Your task to perform on an android device: Open the Play Movies app and select the watchlist tab. Image 0: 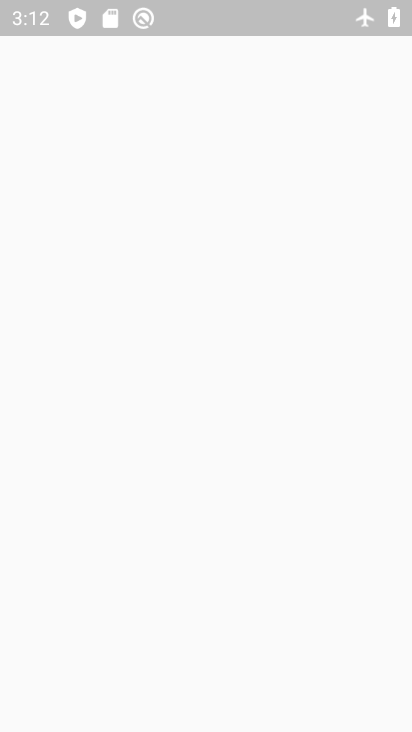
Step 0: press back button
Your task to perform on an android device: Open the Play Movies app and select the watchlist tab. Image 1: 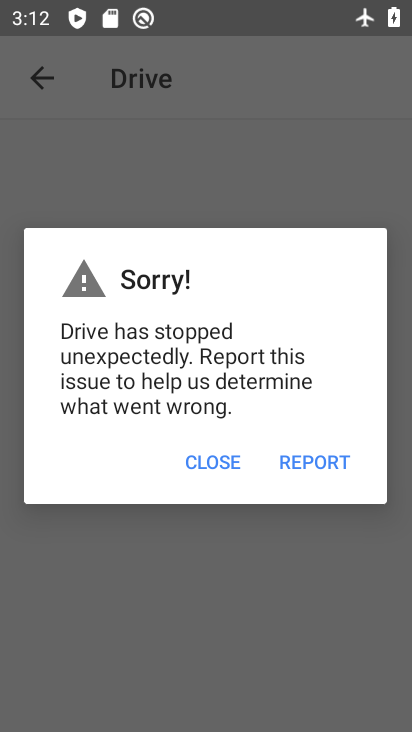
Step 1: press home button
Your task to perform on an android device: Open the Play Movies app and select the watchlist tab. Image 2: 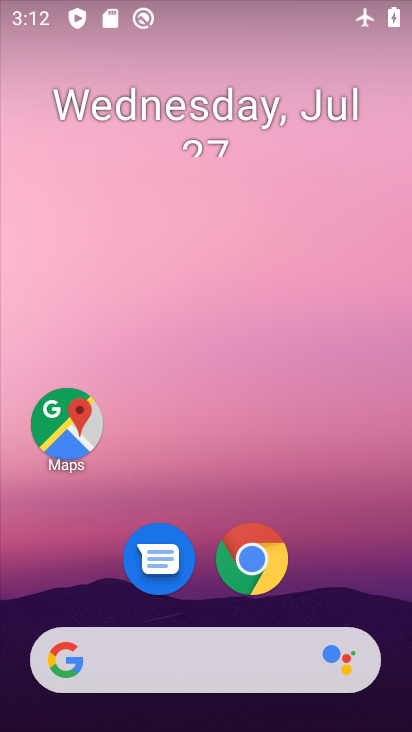
Step 2: drag from (92, 604) to (284, 1)
Your task to perform on an android device: Open the Play Movies app and select the watchlist tab. Image 3: 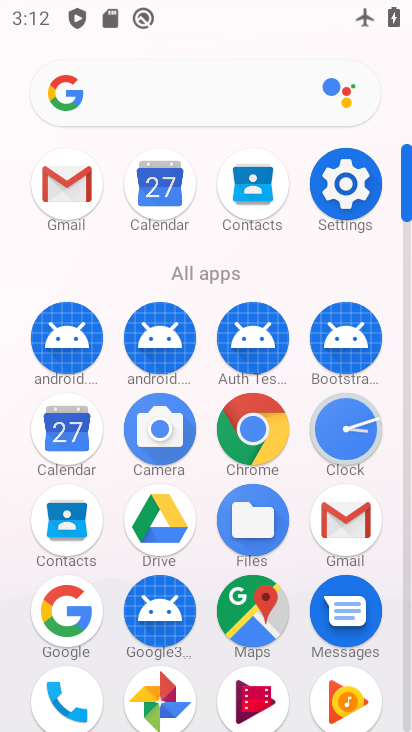
Step 3: drag from (267, 680) to (322, 217)
Your task to perform on an android device: Open the Play Movies app and select the watchlist tab. Image 4: 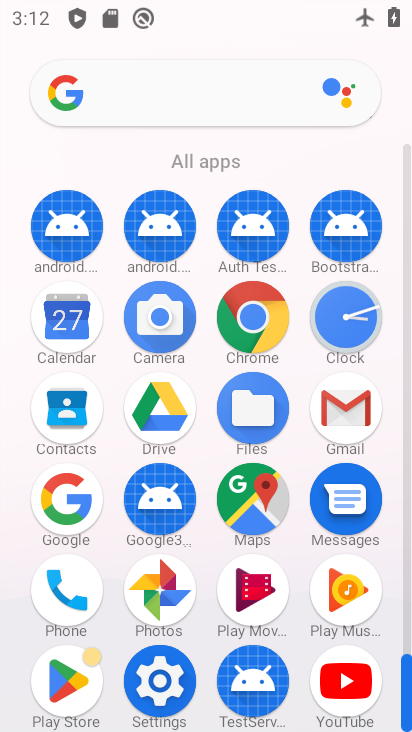
Step 4: click (252, 603)
Your task to perform on an android device: Open the Play Movies app and select the watchlist tab. Image 5: 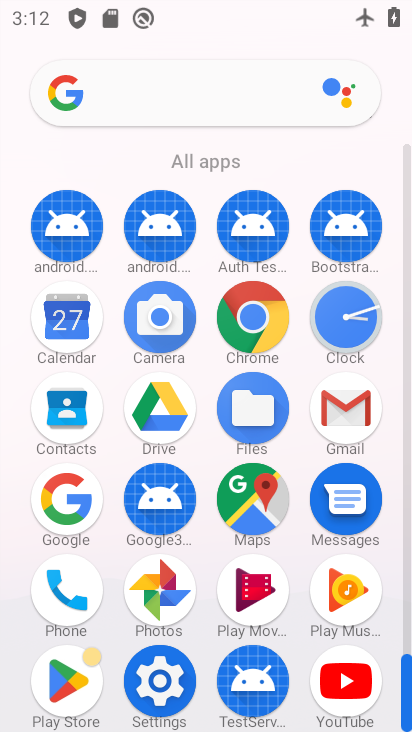
Step 5: click (238, 579)
Your task to perform on an android device: Open the Play Movies app and select the watchlist tab. Image 6: 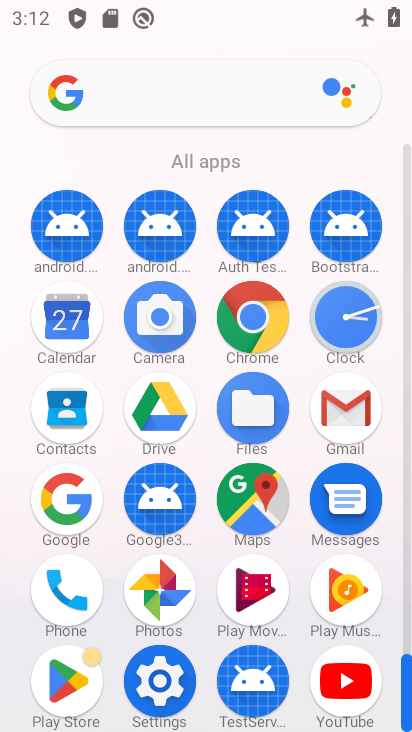
Step 6: task complete